Your task to perform on an android device: choose inbox layout in the gmail app Image 0: 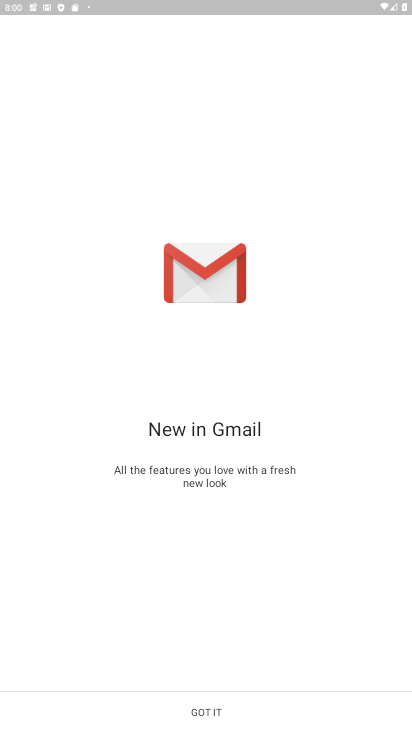
Step 0: click (217, 707)
Your task to perform on an android device: choose inbox layout in the gmail app Image 1: 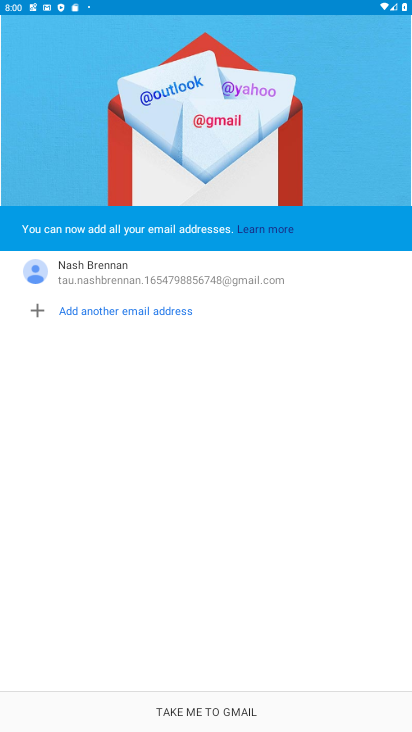
Step 1: click (215, 708)
Your task to perform on an android device: choose inbox layout in the gmail app Image 2: 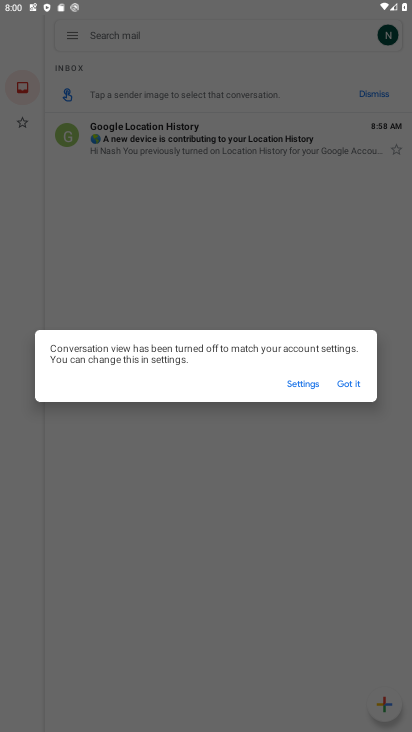
Step 2: click (351, 381)
Your task to perform on an android device: choose inbox layout in the gmail app Image 3: 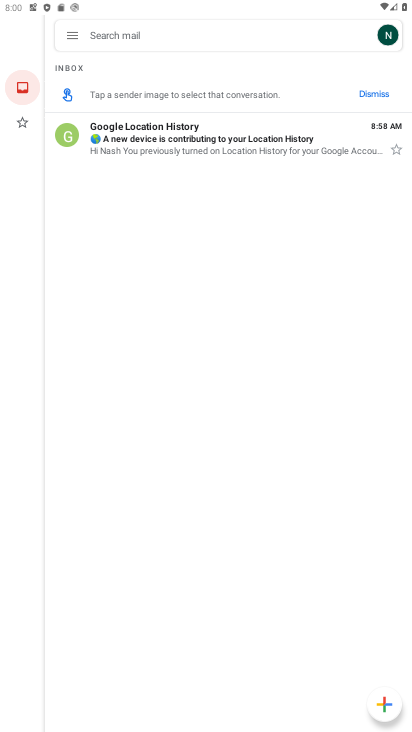
Step 3: click (78, 30)
Your task to perform on an android device: choose inbox layout in the gmail app Image 4: 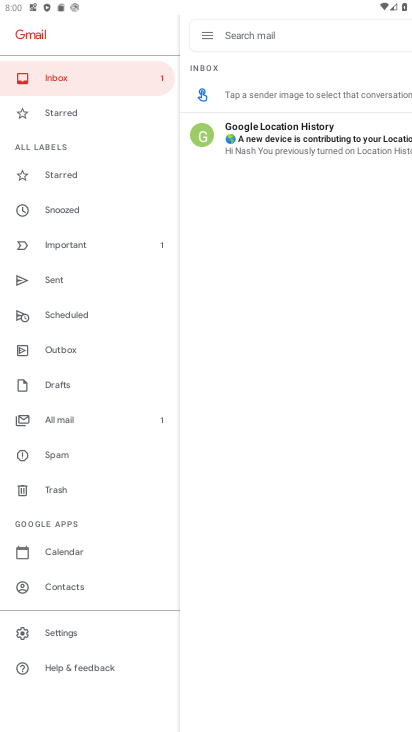
Step 4: click (73, 632)
Your task to perform on an android device: choose inbox layout in the gmail app Image 5: 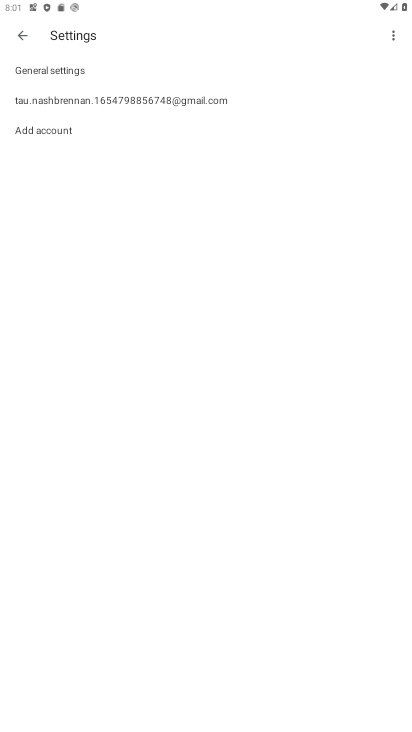
Step 5: click (96, 109)
Your task to perform on an android device: choose inbox layout in the gmail app Image 6: 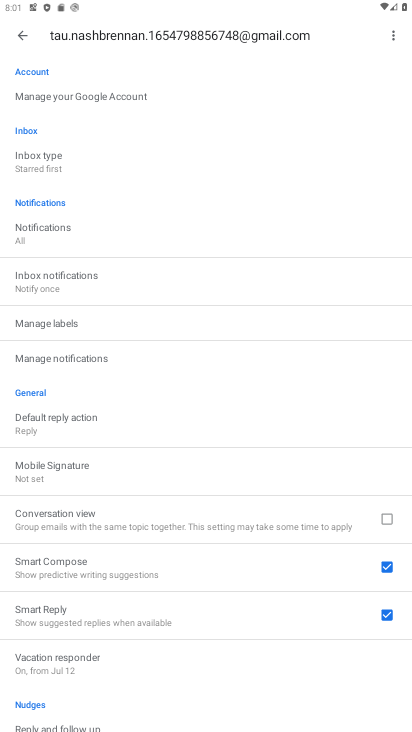
Step 6: click (94, 171)
Your task to perform on an android device: choose inbox layout in the gmail app Image 7: 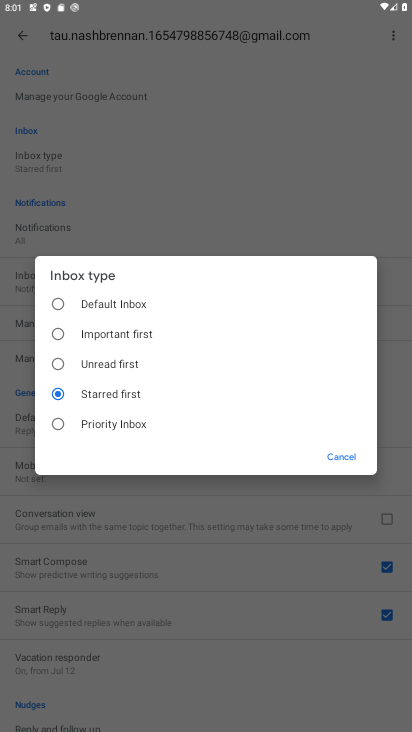
Step 7: click (111, 313)
Your task to perform on an android device: choose inbox layout in the gmail app Image 8: 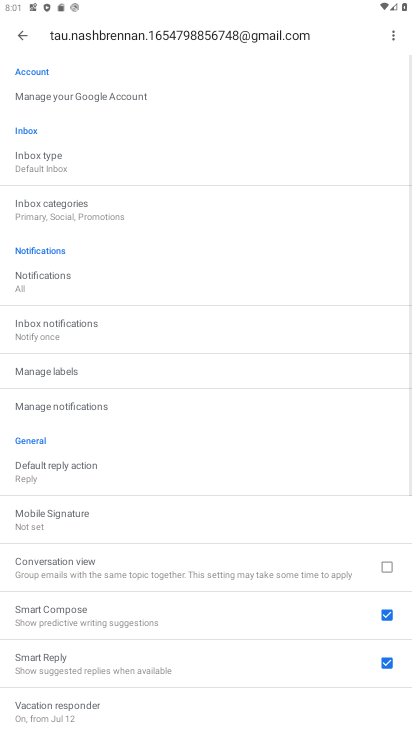
Step 8: task complete